Your task to perform on an android device: turn on sleep mode Image 0: 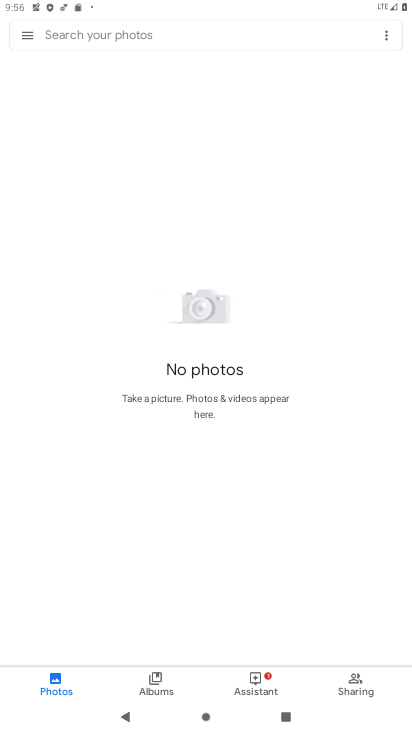
Step 0: drag from (261, 644) to (264, 271)
Your task to perform on an android device: turn on sleep mode Image 1: 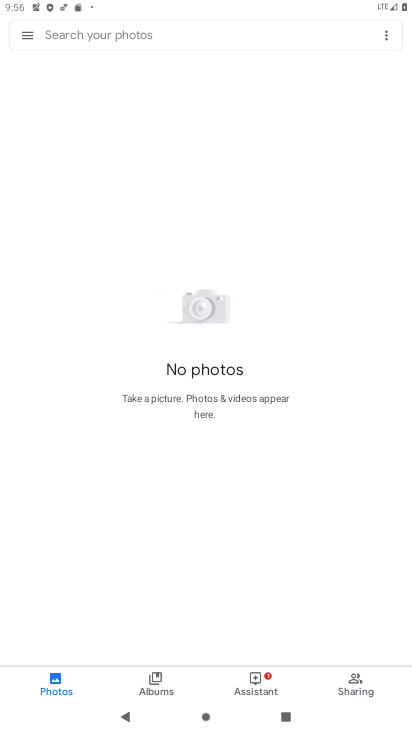
Step 1: press home button
Your task to perform on an android device: turn on sleep mode Image 2: 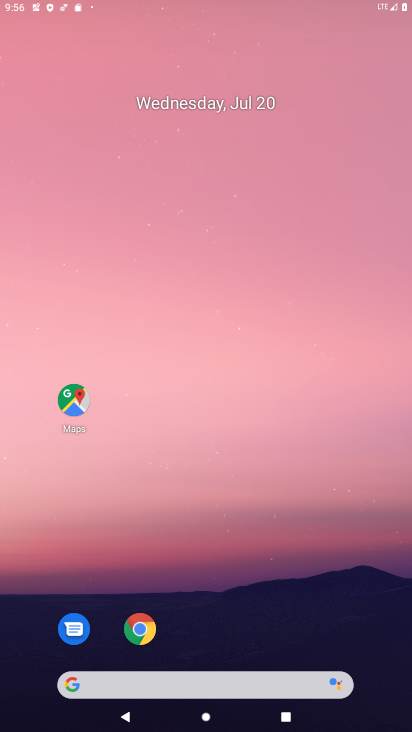
Step 2: drag from (330, 626) to (318, 3)
Your task to perform on an android device: turn on sleep mode Image 3: 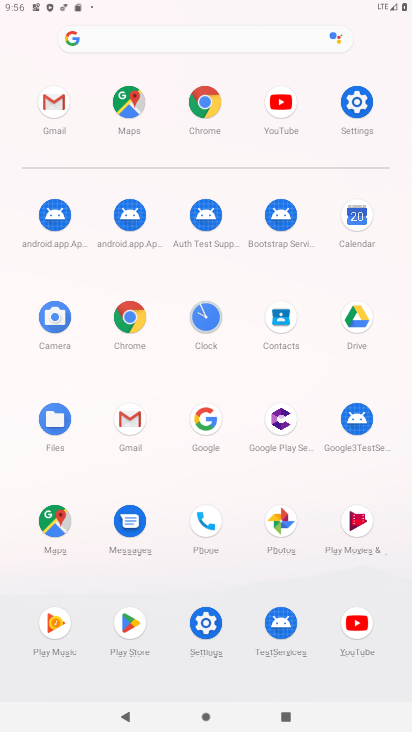
Step 3: click (202, 621)
Your task to perform on an android device: turn on sleep mode Image 4: 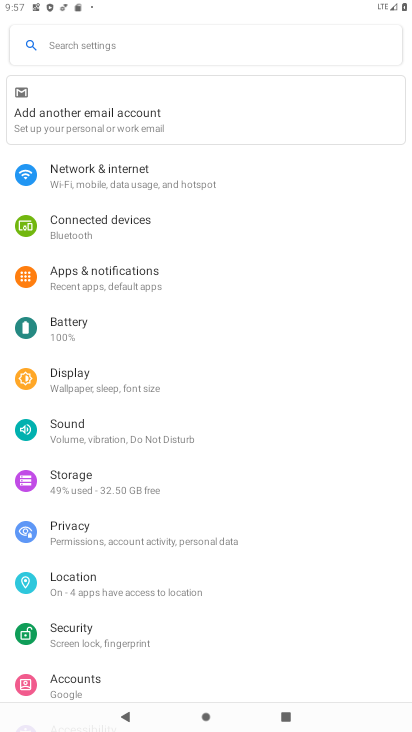
Step 4: click (90, 358)
Your task to perform on an android device: turn on sleep mode Image 5: 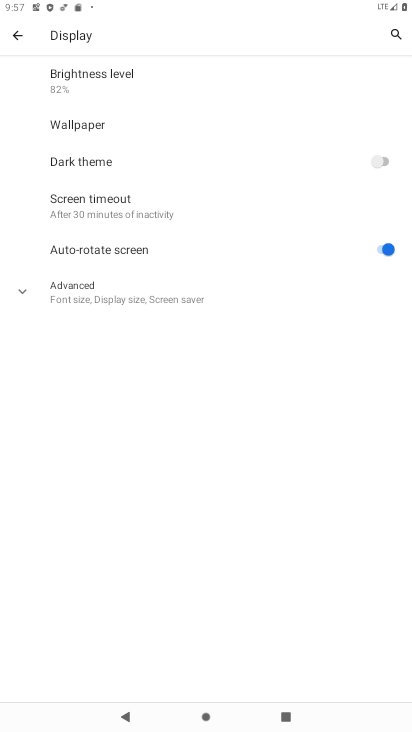
Step 5: task complete